Your task to perform on an android device: Is it going to rain today? Image 0: 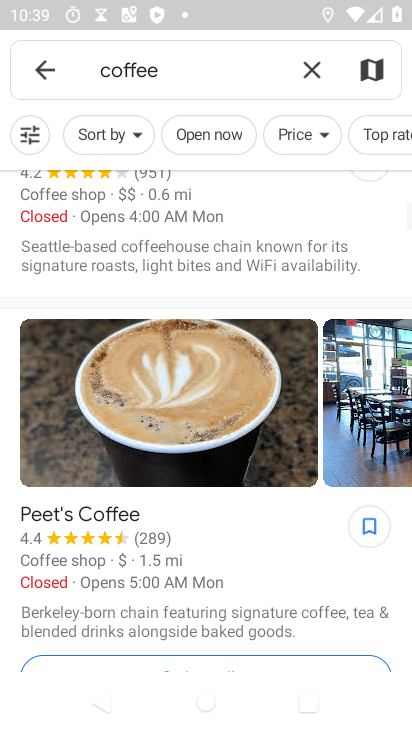
Step 0: press home button
Your task to perform on an android device: Is it going to rain today? Image 1: 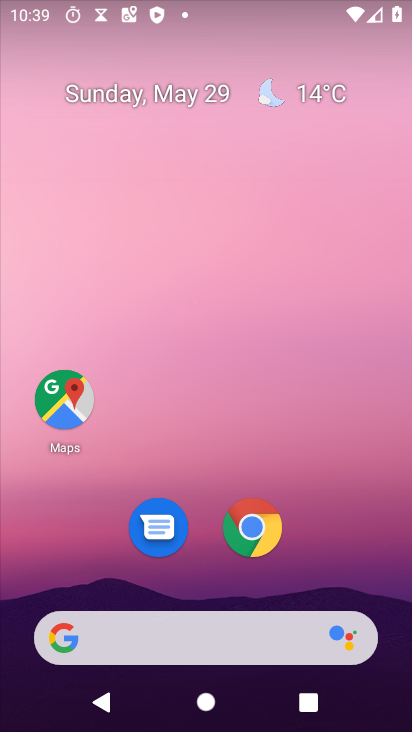
Step 1: click (73, 640)
Your task to perform on an android device: Is it going to rain today? Image 2: 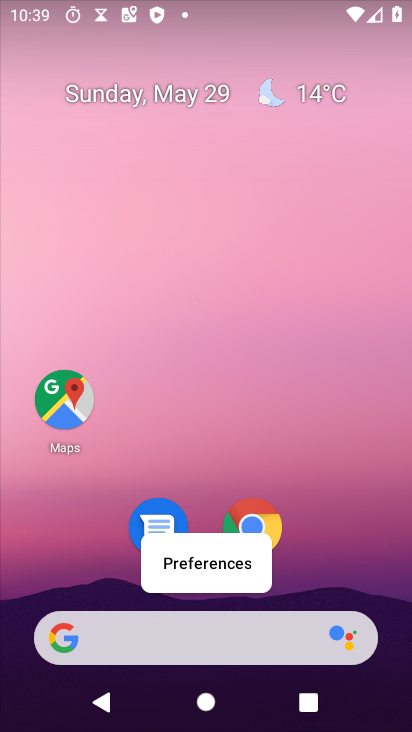
Step 2: click (310, 87)
Your task to perform on an android device: Is it going to rain today? Image 3: 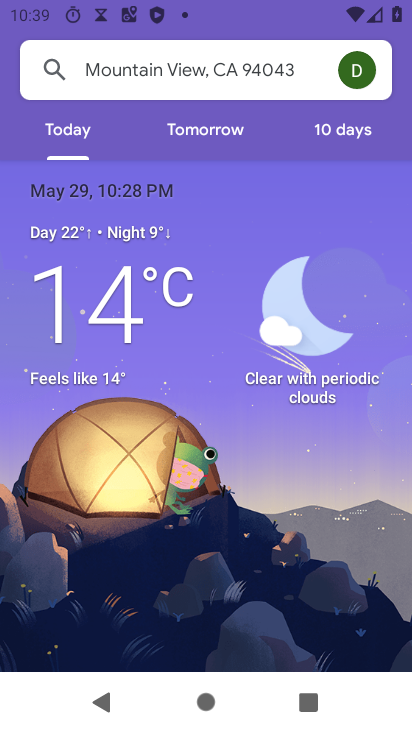
Step 3: task complete